Your task to perform on an android device: Open Google Chrome and open the bookmarks view Image 0: 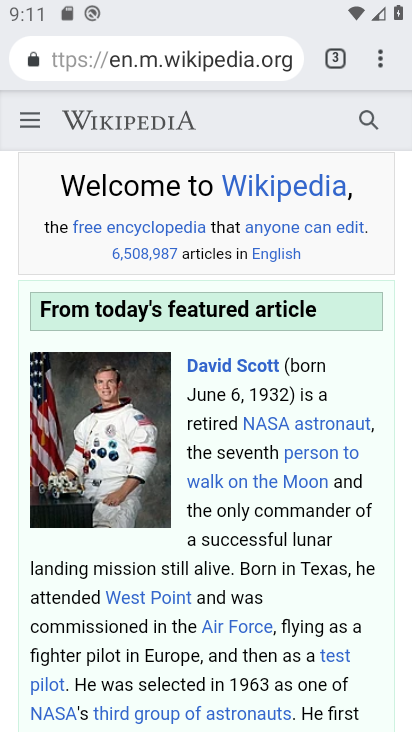
Step 0: click (375, 55)
Your task to perform on an android device: Open Google Chrome and open the bookmarks view Image 1: 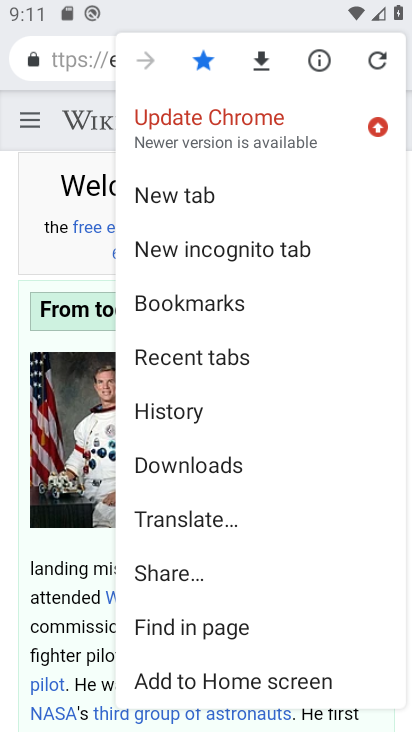
Step 1: click (263, 305)
Your task to perform on an android device: Open Google Chrome and open the bookmarks view Image 2: 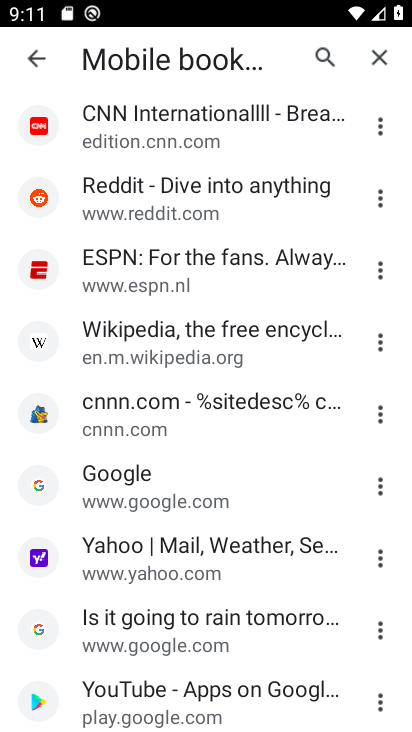
Step 2: task complete